Your task to perform on an android device: delete location history Image 0: 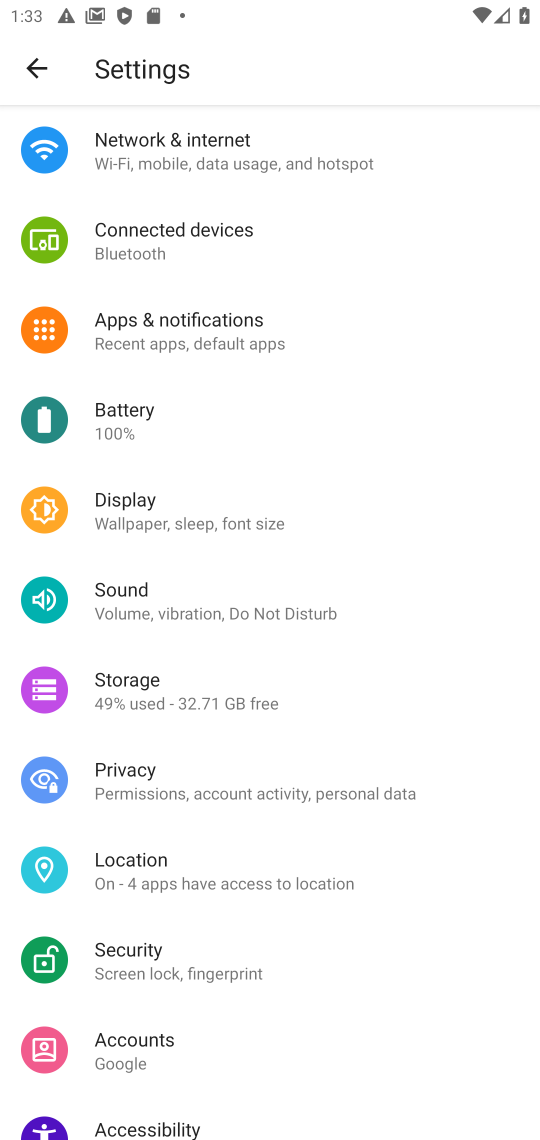
Step 0: press home button
Your task to perform on an android device: delete location history Image 1: 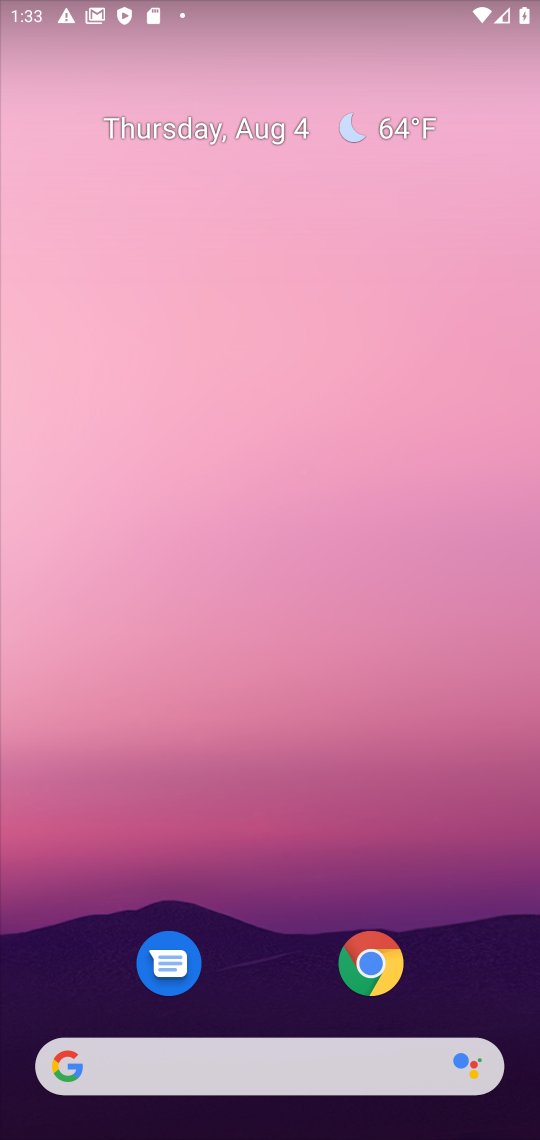
Step 1: drag from (231, 1048) to (206, 124)
Your task to perform on an android device: delete location history Image 2: 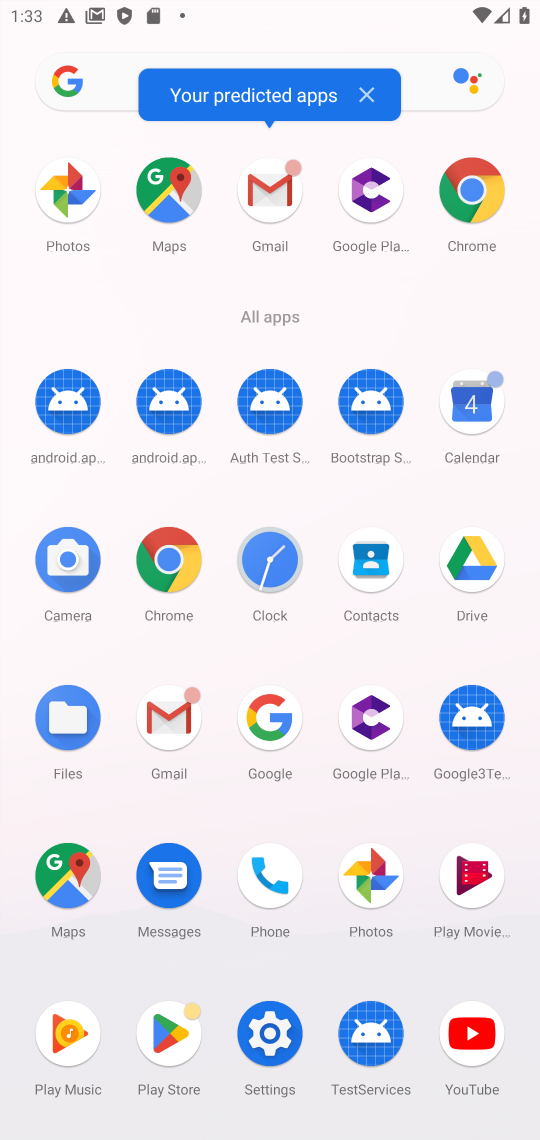
Step 2: click (63, 890)
Your task to perform on an android device: delete location history Image 3: 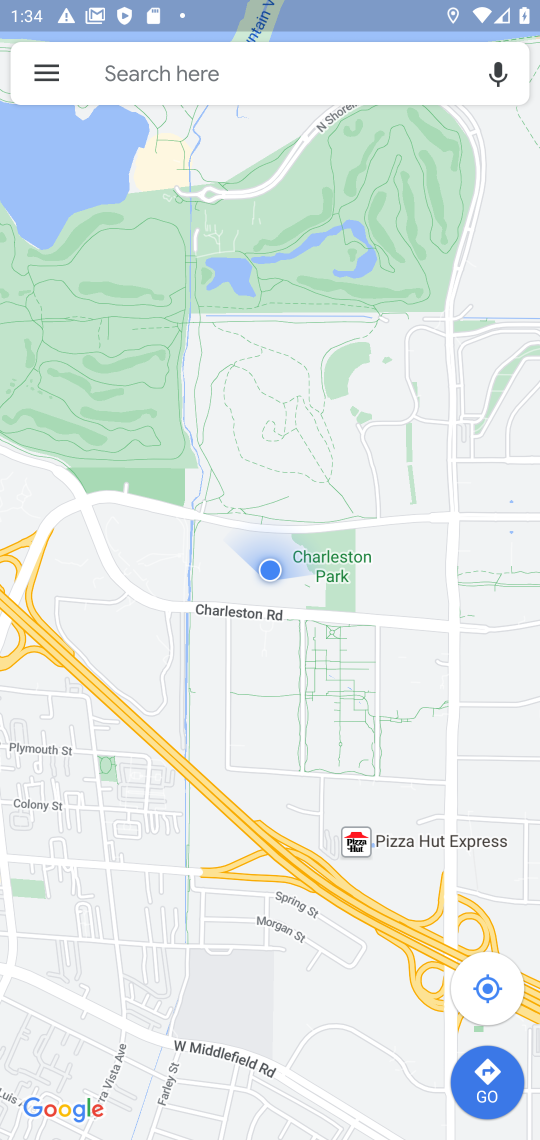
Step 3: click (45, 90)
Your task to perform on an android device: delete location history Image 4: 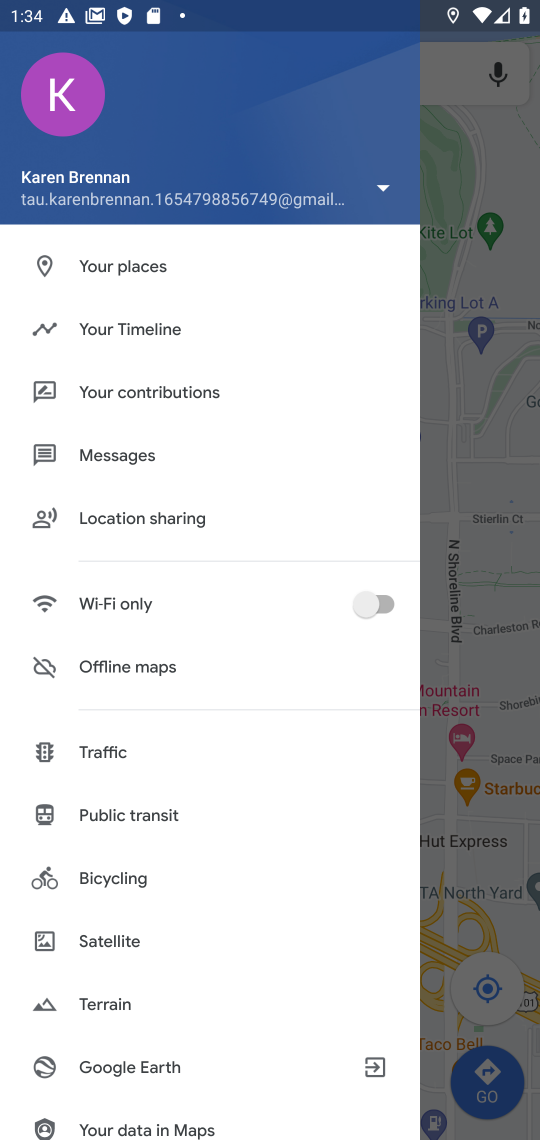
Step 4: click (124, 332)
Your task to perform on an android device: delete location history Image 5: 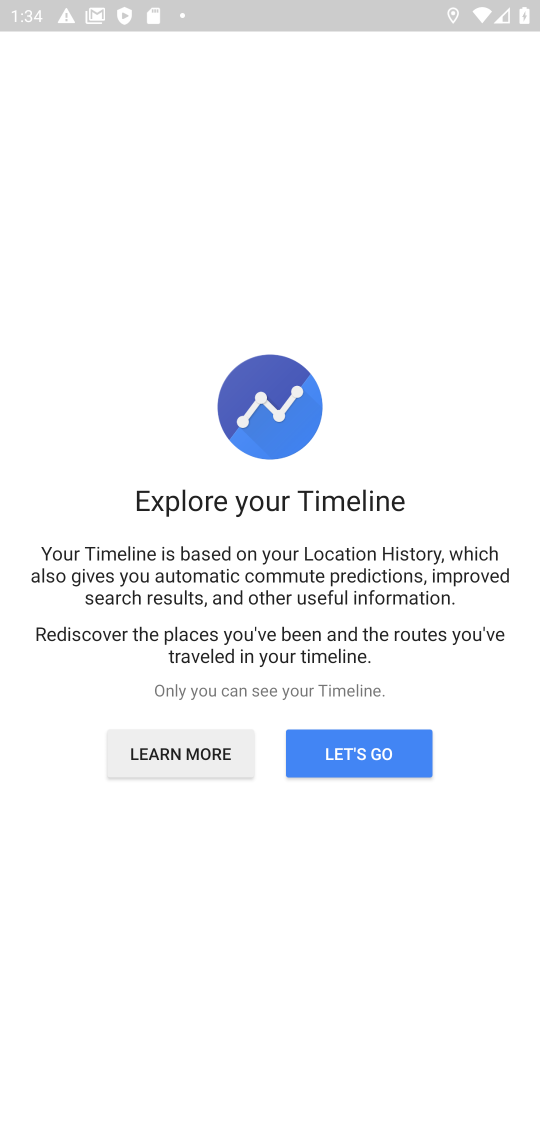
Step 5: click (320, 771)
Your task to perform on an android device: delete location history Image 6: 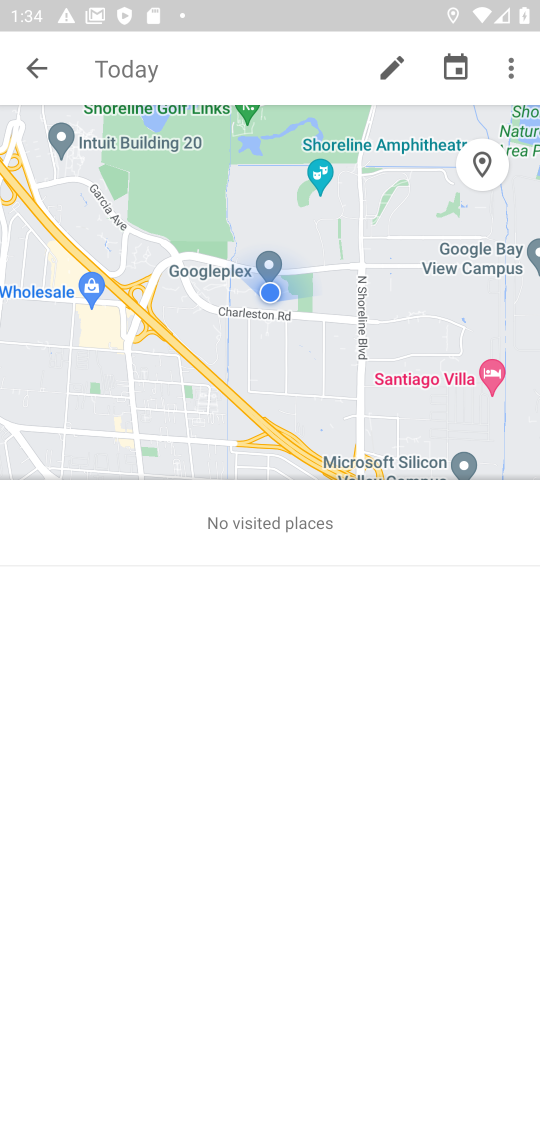
Step 6: click (499, 66)
Your task to perform on an android device: delete location history Image 7: 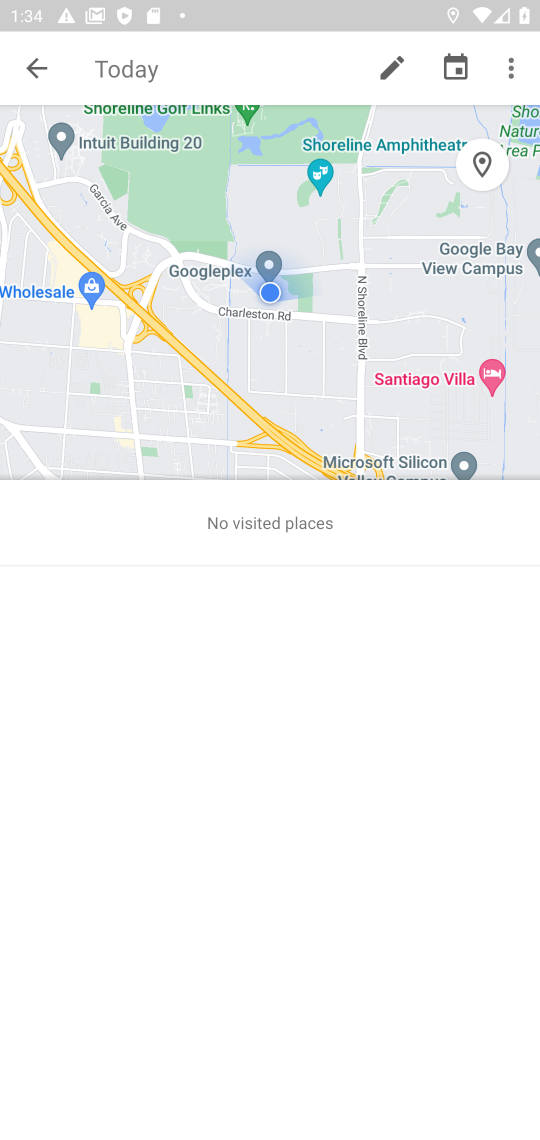
Step 7: click (512, 82)
Your task to perform on an android device: delete location history Image 8: 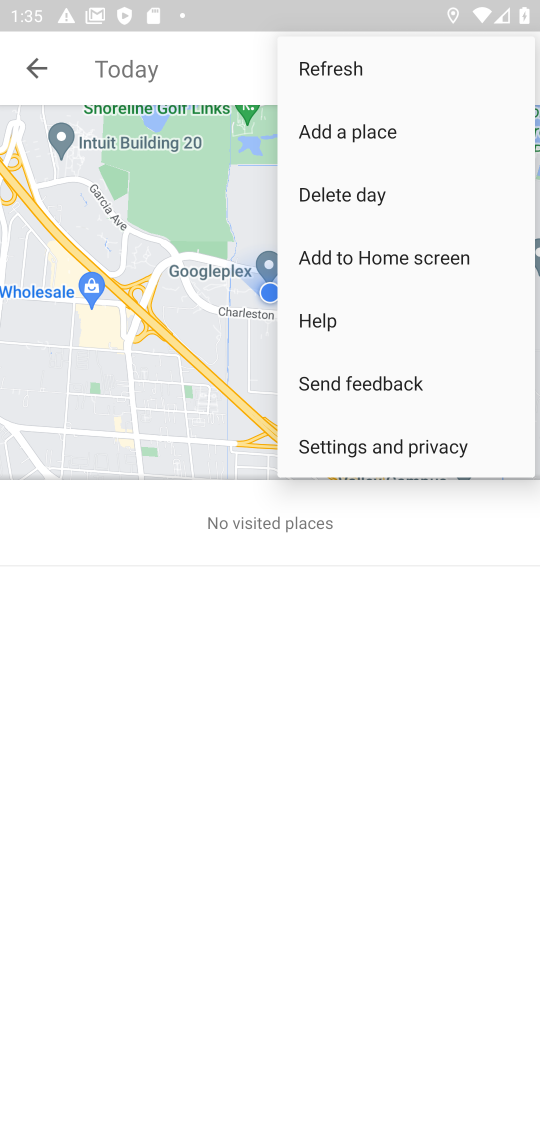
Step 8: click (358, 446)
Your task to perform on an android device: delete location history Image 9: 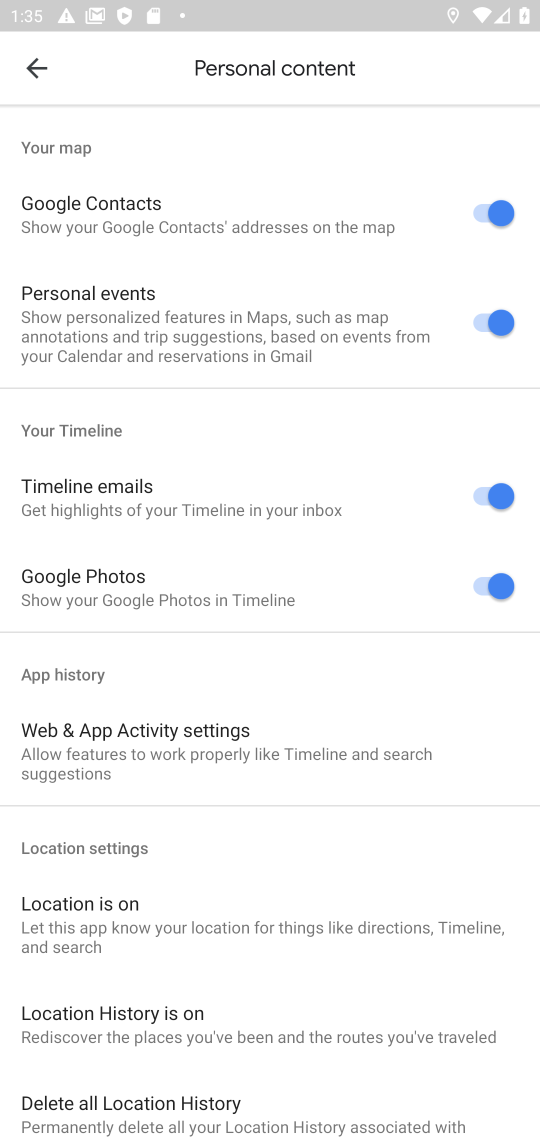
Step 9: click (204, 1098)
Your task to perform on an android device: delete location history Image 10: 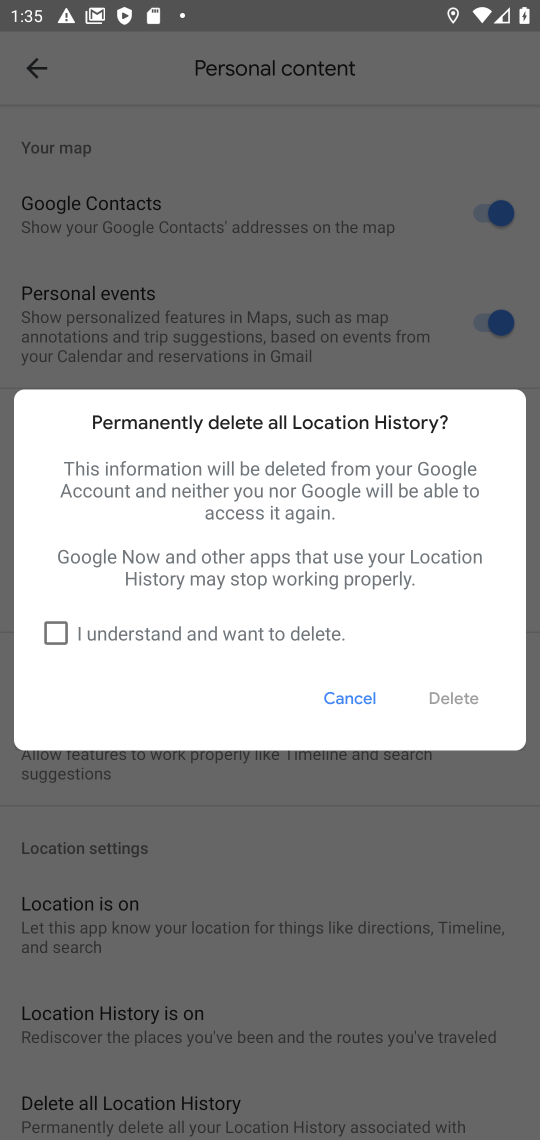
Step 10: click (234, 634)
Your task to perform on an android device: delete location history Image 11: 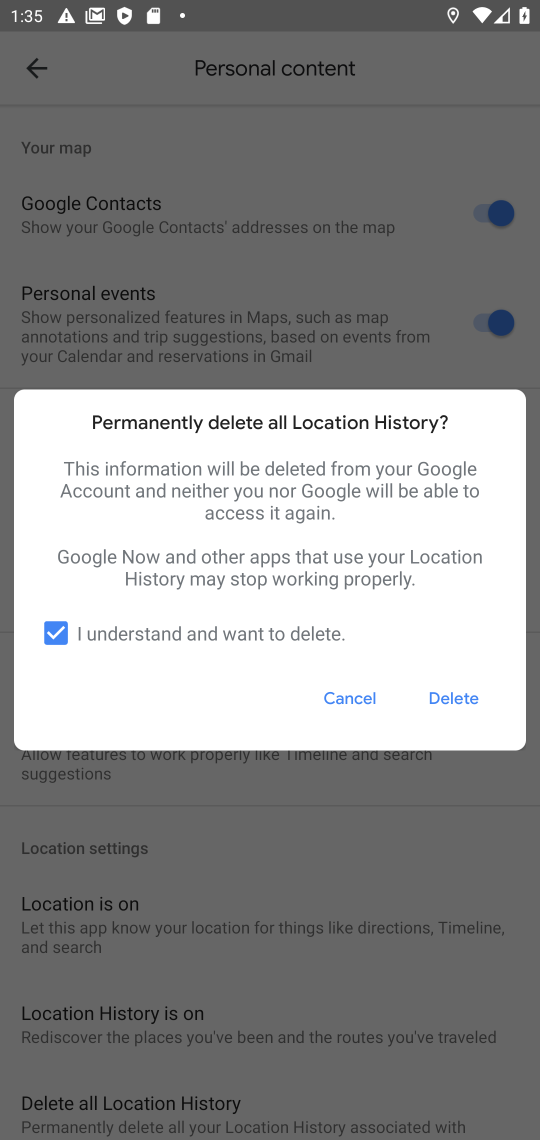
Step 11: click (447, 701)
Your task to perform on an android device: delete location history Image 12: 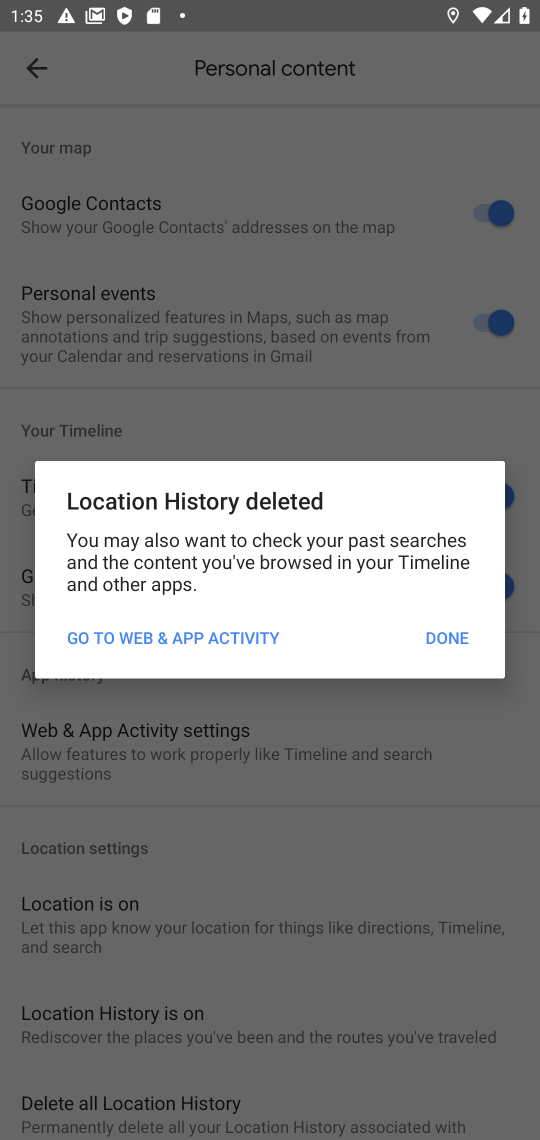
Step 12: click (452, 636)
Your task to perform on an android device: delete location history Image 13: 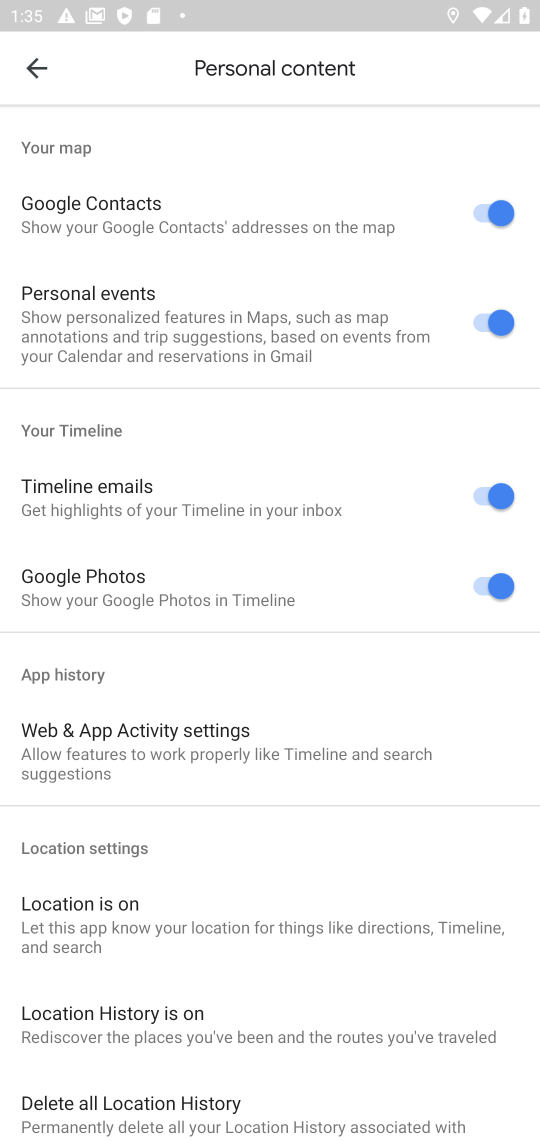
Step 13: task complete